Your task to perform on an android device: star an email in the gmail app Image 0: 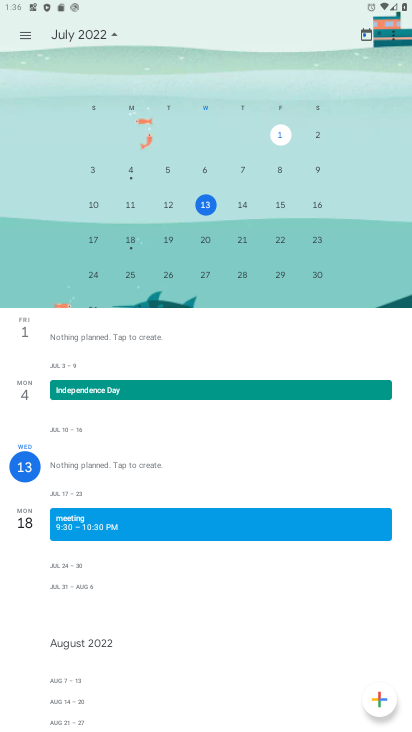
Step 0: press home button
Your task to perform on an android device: star an email in the gmail app Image 1: 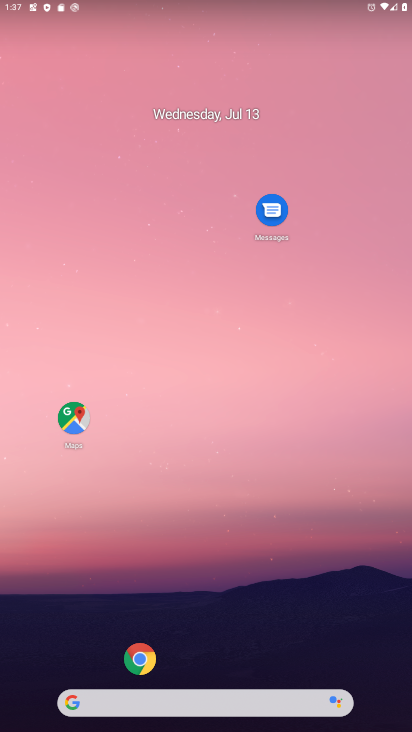
Step 1: drag from (42, 574) to (190, 96)
Your task to perform on an android device: star an email in the gmail app Image 2: 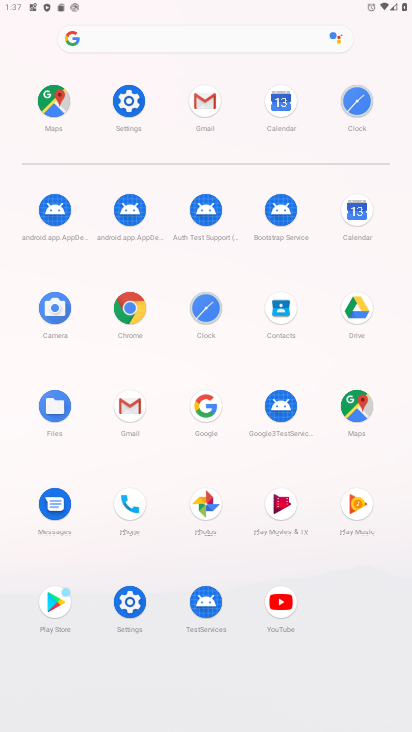
Step 2: click (133, 416)
Your task to perform on an android device: star an email in the gmail app Image 3: 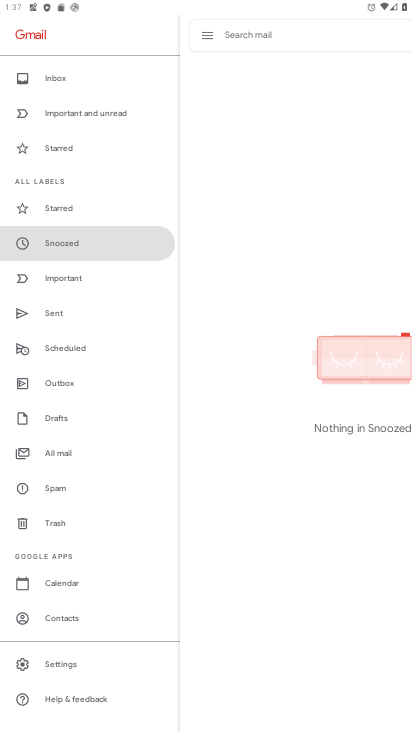
Step 3: click (75, 74)
Your task to perform on an android device: star an email in the gmail app Image 4: 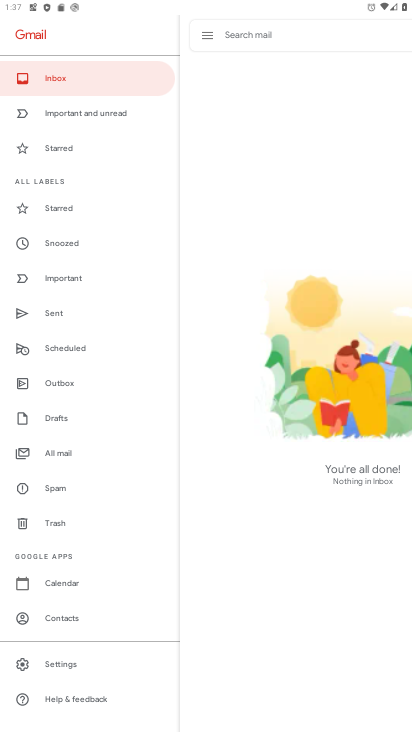
Step 4: task complete